Your task to perform on an android device: Open the phone app and click the voicemail tab. Image 0: 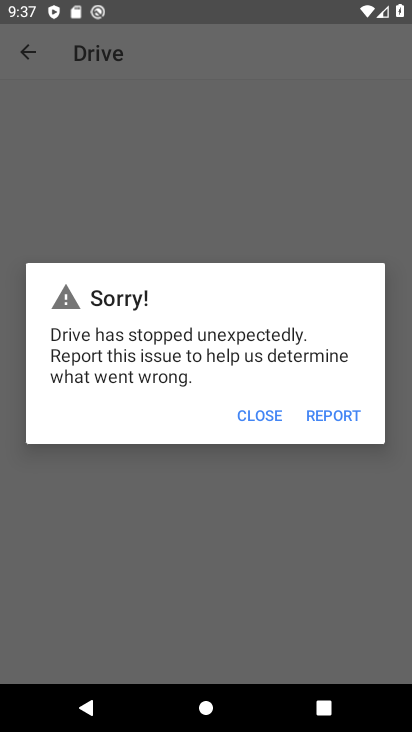
Step 0: press home button
Your task to perform on an android device: Open the phone app and click the voicemail tab. Image 1: 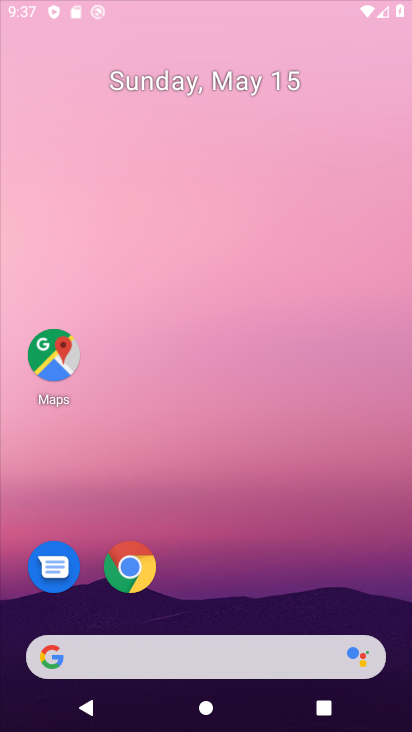
Step 1: drag from (237, 548) to (217, 5)
Your task to perform on an android device: Open the phone app and click the voicemail tab. Image 2: 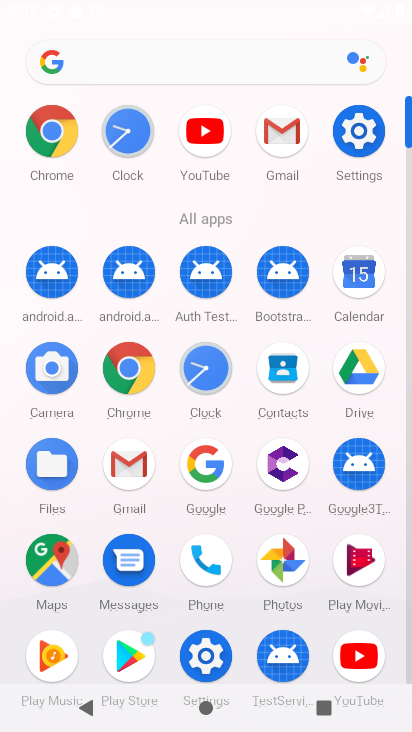
Step 2: click (202, 570)
Your task to perform on an android device: Open the phone app and click the voicemail tab. Image 3: 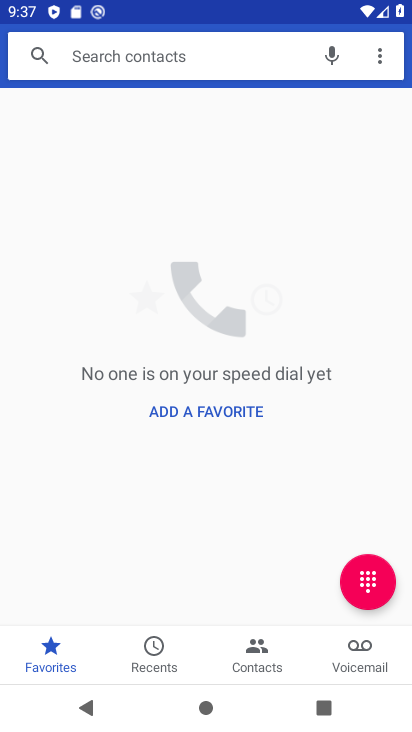
Step 3: click (358, 661)
Your task to perform on an android device: Open the phone app and click the voicemail tab. Image 4: 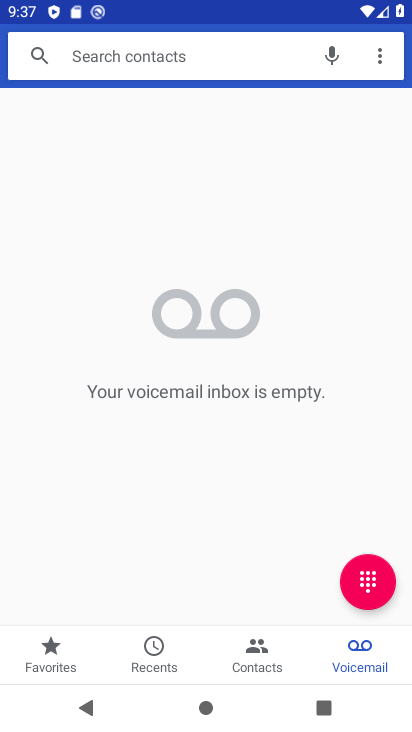
Step 4: task complete